Your task to perform on an android device: clear history in the chrome app Image 0: 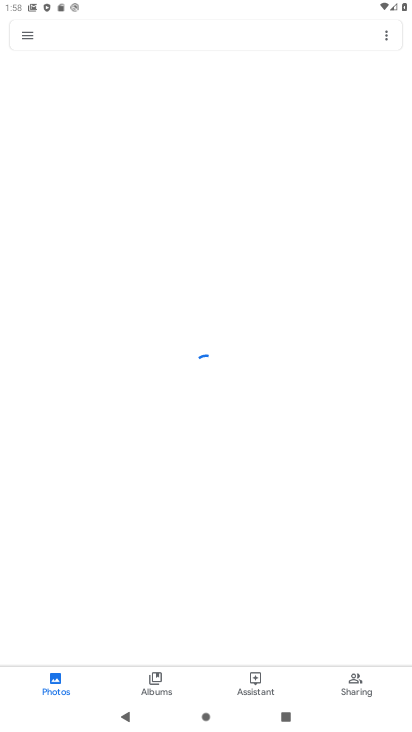
Step 0: press home button
Your task to perform on an android device: clear history in the chrome app Image 1: 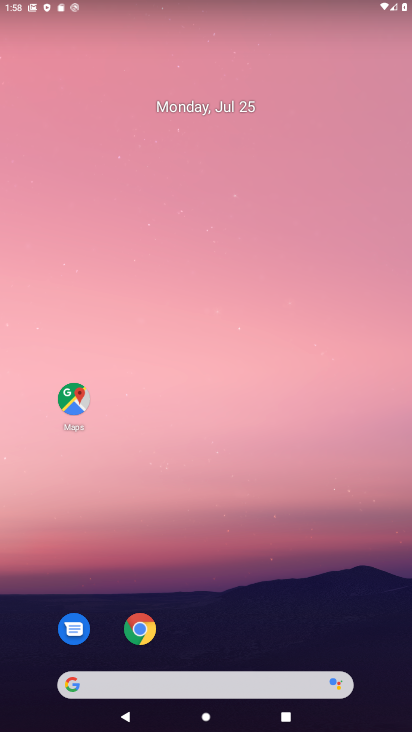
Step 1: click (138, 632)
Your task to perform on an android device: clear history in the chrome app Image 2: 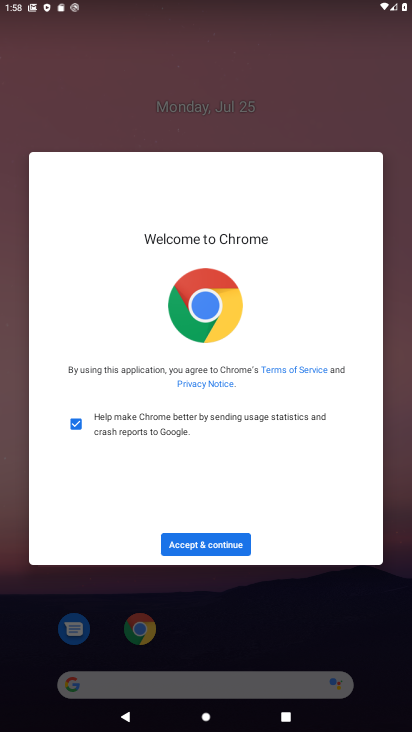
Step 2: click (210, 552)
Your task to perform on an android device: clear history in the chrome app Image 3: 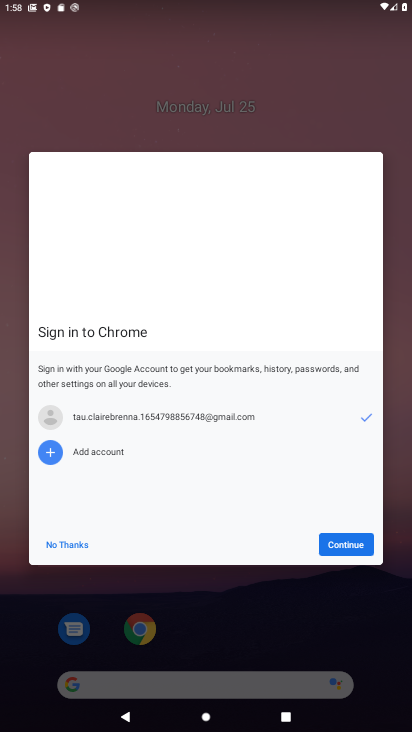
Step 3: click (364, 546)
Your task to perform on an android device: clear history in the chrome app Image 4: 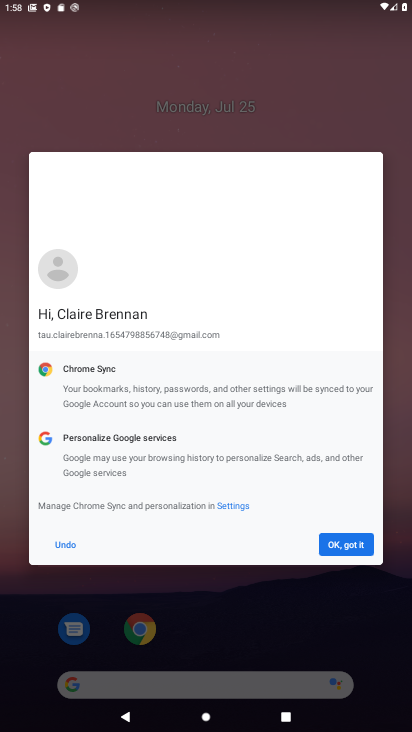
Step 4: click (345, 547)
Your task to perform on an android device: clear history in the chrome app Image 5: 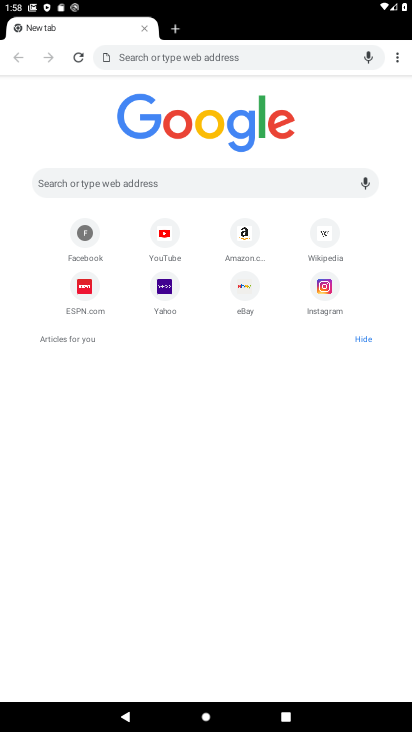
Step 5: click (396, 55)
Your task to perform on an android device: clear history in the chrome app Image 6: 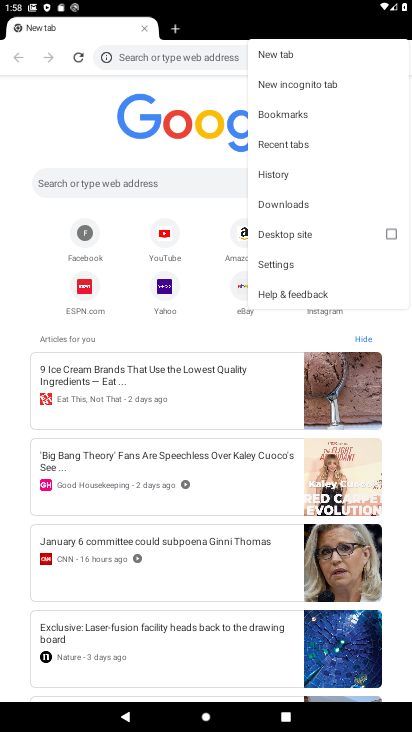
Step 6: click (395, 64)
Your task to perform on an android device: clear history in the chrome app Image 7: 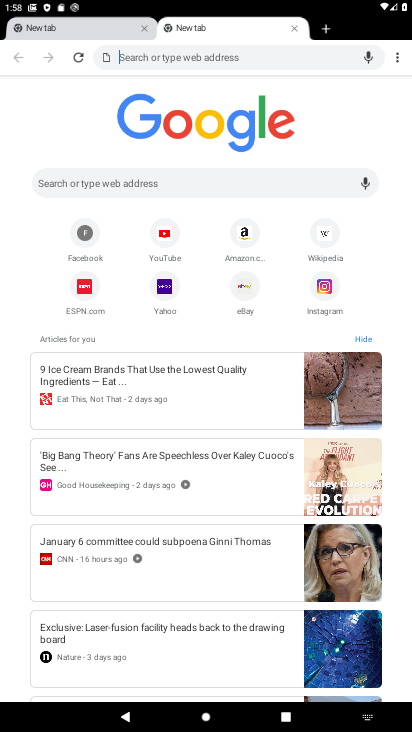
Step 7: click (394, 63)
Your task to perform on an android device: clear history in the chrome app Image 8: 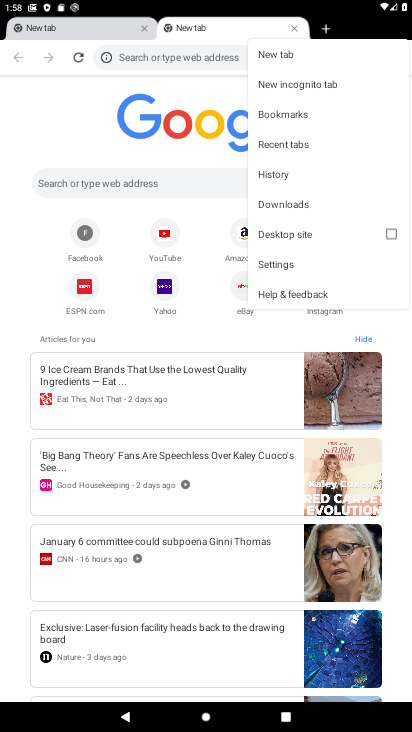
Step 8: click (287, 178)
Your task to perform on an android device: clear history in the chrome app Image 9: 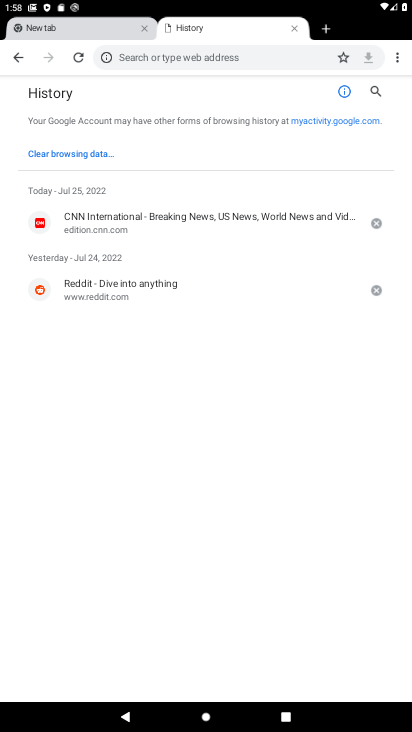
Step 9: click (78, 152)
Your task to perform on an android device: clear history in the chrome app Image 10: 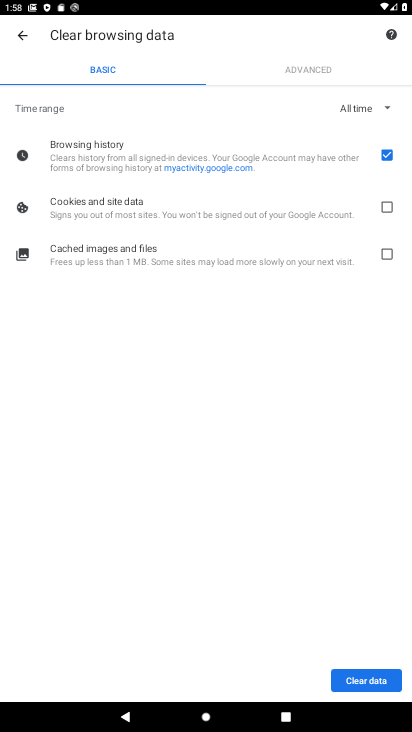
Step 10: click (383, 209)
Your task to perform on an android device: clear history in the chrome app Image 11: 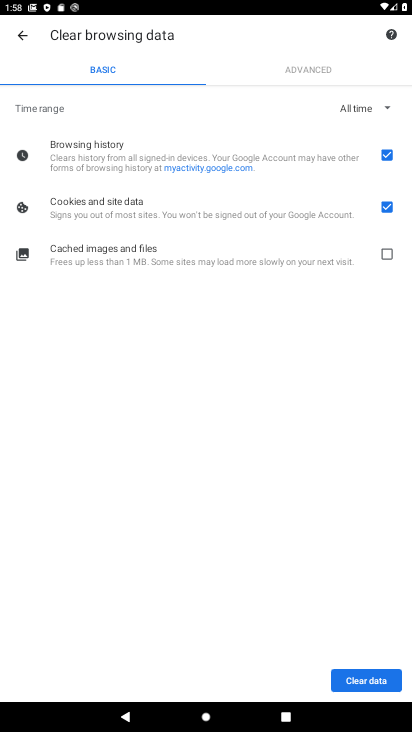
Step 11: click (381, 251)
Your task to perform on an android device: clear history in the chrome app Image 12: 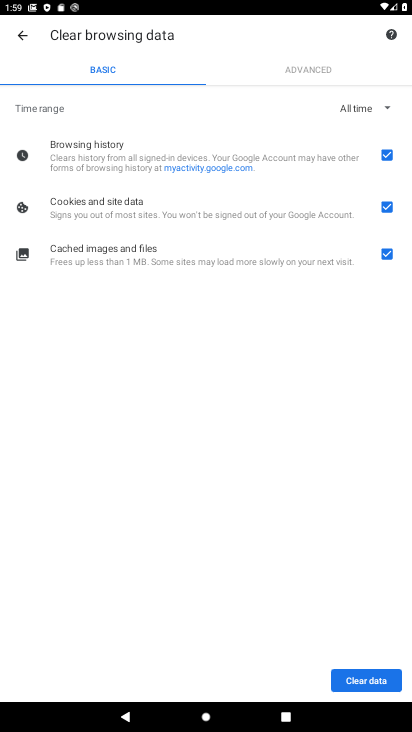
Step 12: click (366, 683)
Your task to perform on an android device: clear history in the chrome app Image 13: 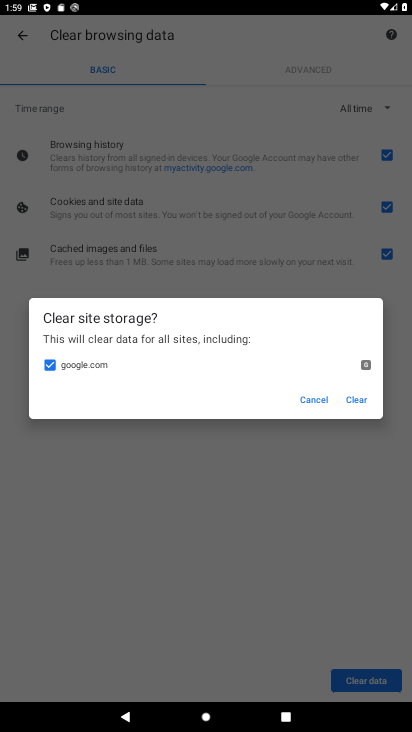
Step 13: click (359, 396)
Your task to perform on an android device: clear history in the chrome app Image 14: 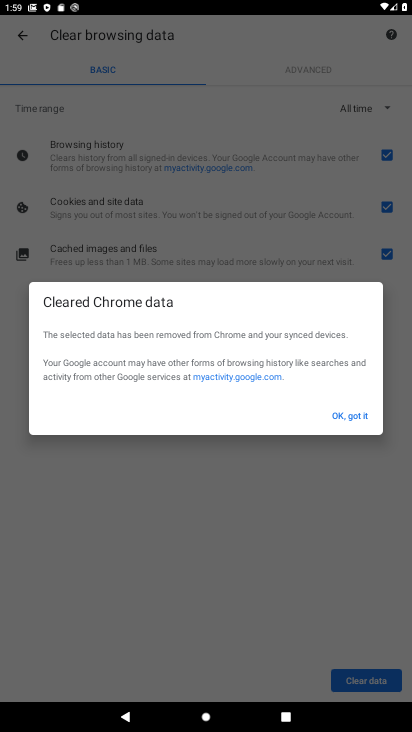
Step 14: click (363, 421)
Your task to perform on an android device: clear history in the chrome app Image 15: 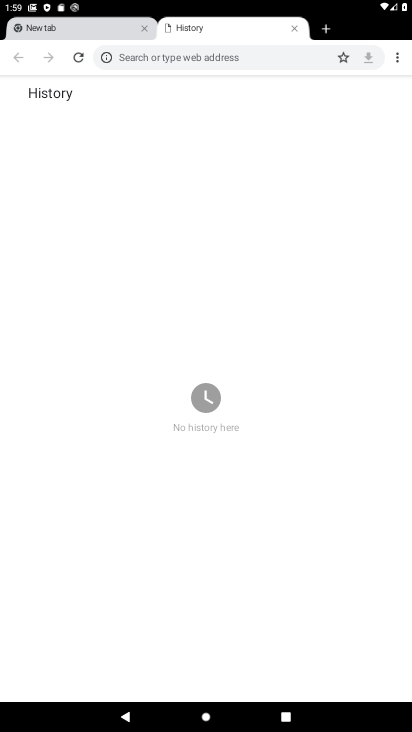
Step 15: task complete